Your task to perform on an android device: change the clock display to digital Image 0: 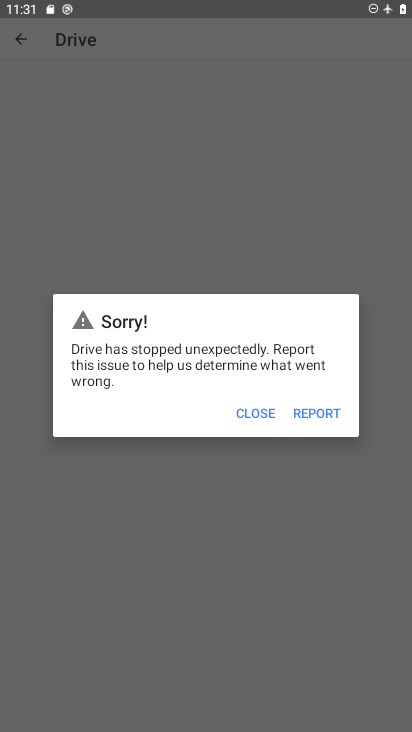
Step 0: press home button
Your task to perform on an android device: change the clock display to digital Image 1: 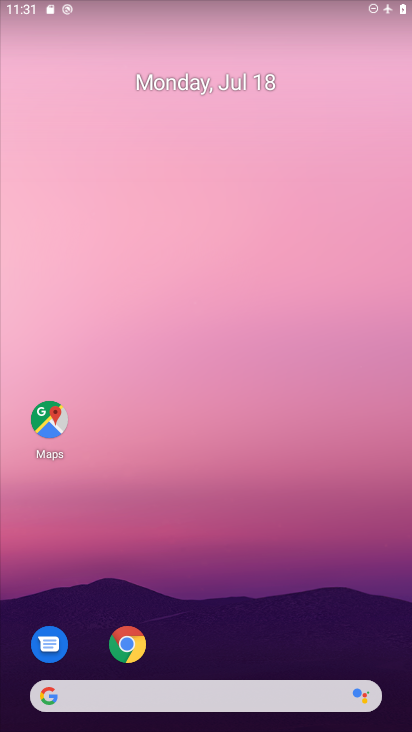
Step 1: drag from (173, 669) to (164, 88)
Your task to perform on an android device: change the clock display to digital Image 2: 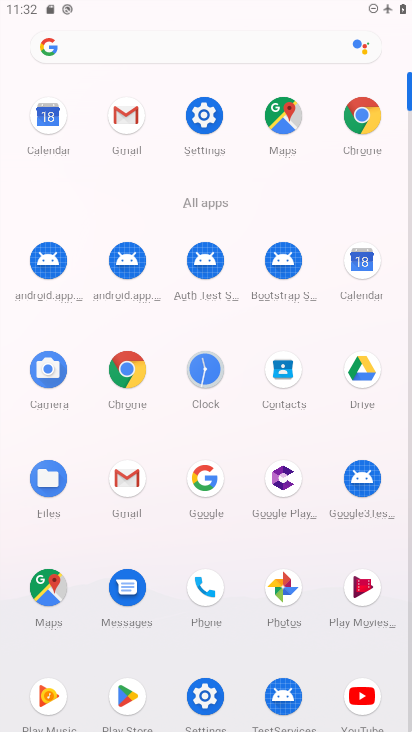
Step 2: click (197, 364)
Your task to perform on an android device: change the clock display to digital Image 3: 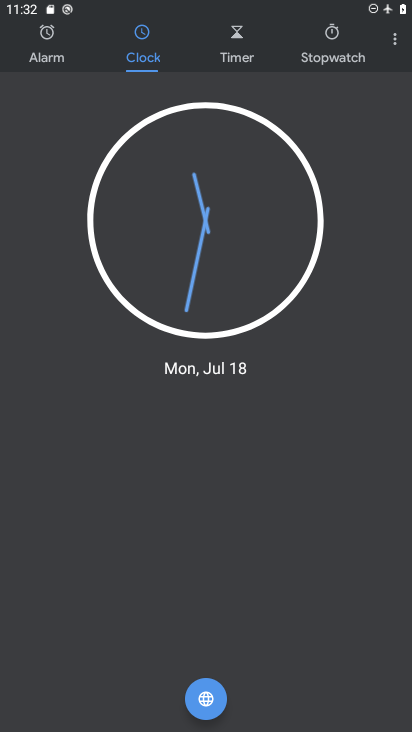
Step 3: click (399, 44)
Your task to perform on an android device: change the clock display to digital Image 4: 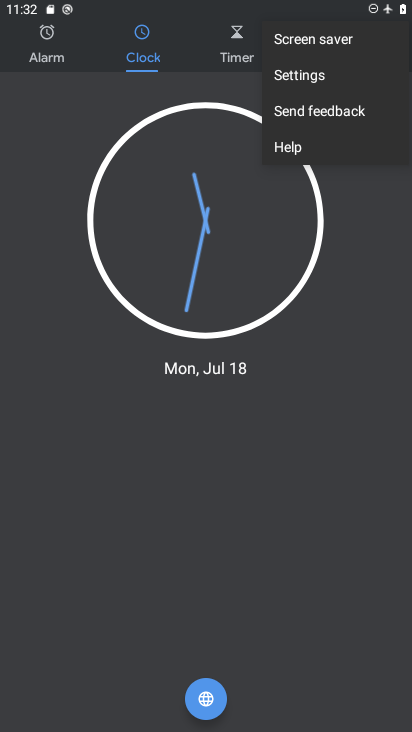
Step 4: click (306, 78)
Your task to perform on an android device: change the clock display to digital Image 5: 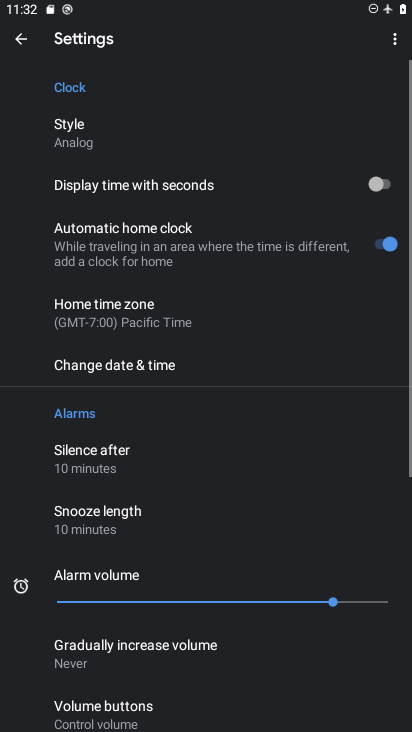
Step 5: click (103, 145)
Your task to perform on an android device: change the clock display to digital Image 6: 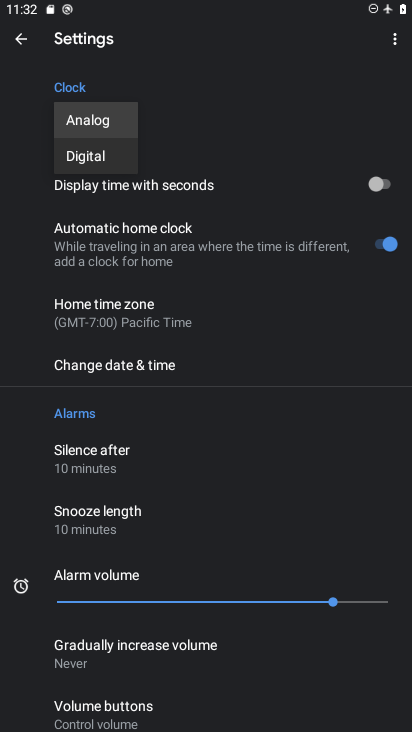
Step 6: click (99, 156)
Your task to perform on an android device: change the clock display to digital Image 7: 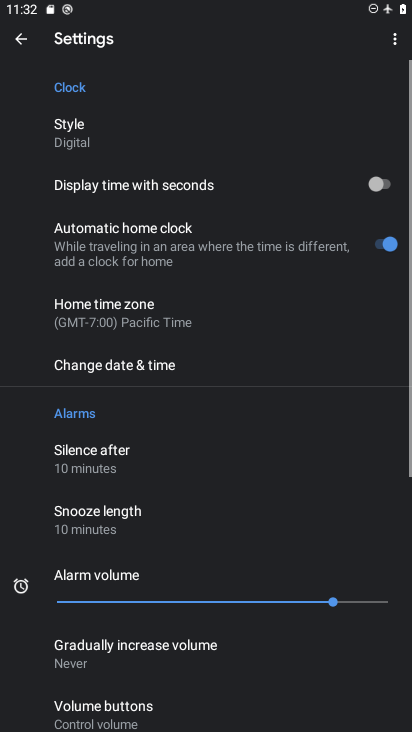
Step 7: task complete